Your task to perform on an android device: check the backup settings in the google photos Image 0: 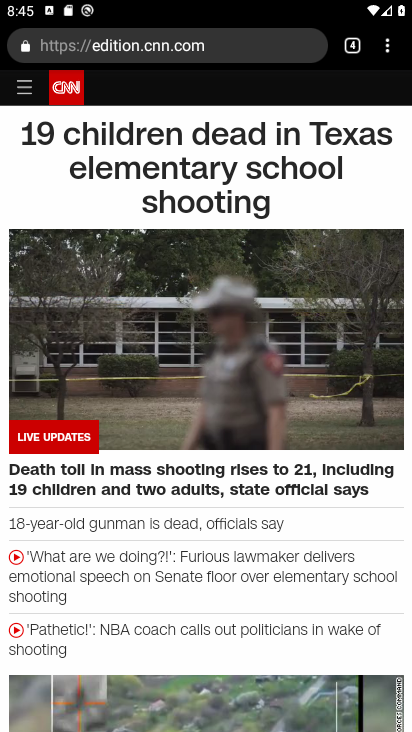
Step 0: press home button
Your task to perform on an android device: check the backup settings in the google photos Image 1: 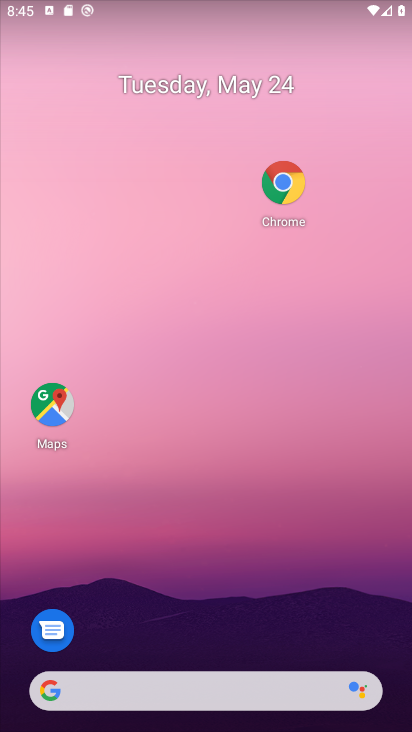
Step 1: drag from (169, 709) to (238, 298)
Your task to perform on an android device: check the backup settings in the google photos Image 2: 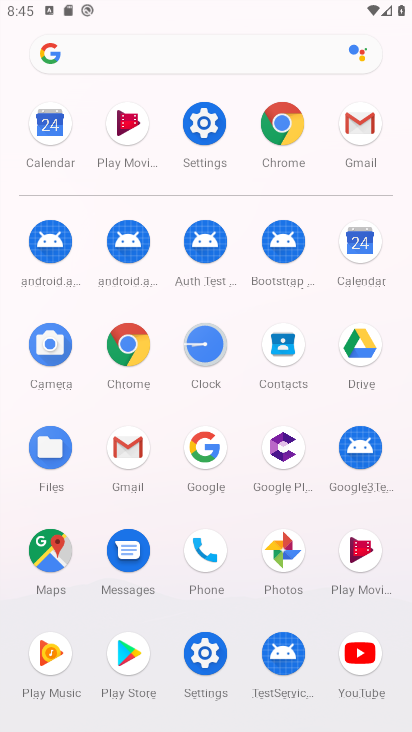
Step 2: click (285, 551)
Your task to perform on an android device: check the backup settings in the google photos Image 3: 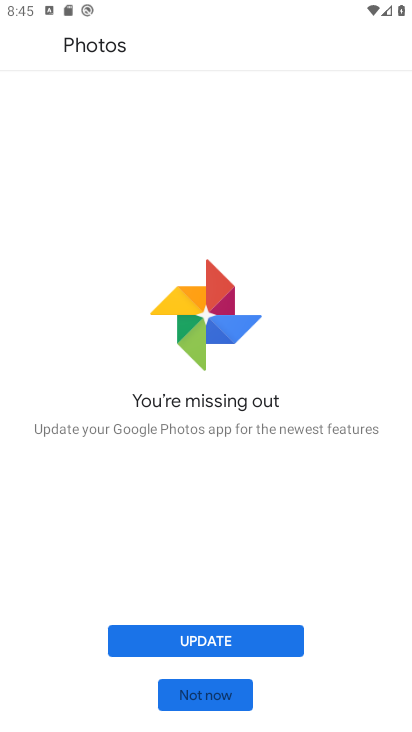
Step 3: click (215, 640)
Your task to perform on an android device: check the backup settings in the google photos Image 4: 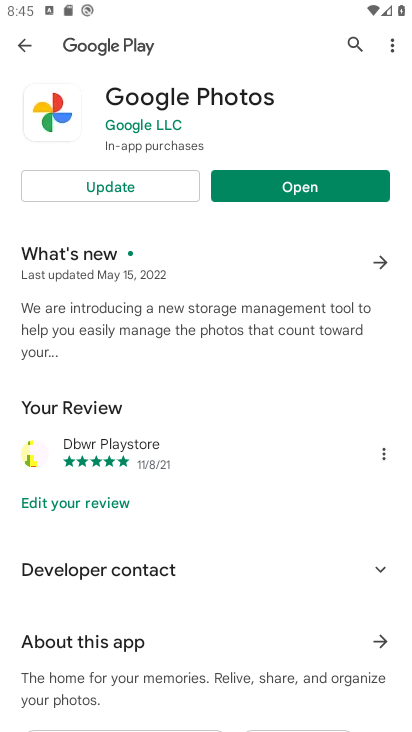
Step 4: click (281, 179)
Your task to perform on an android device: check the backup settings in the google photos Image 5: 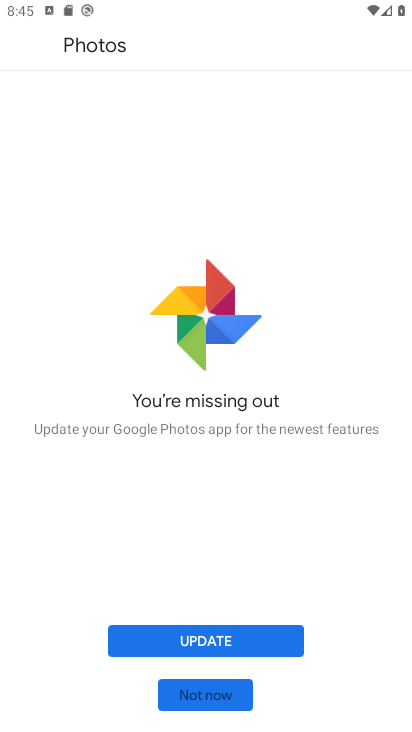
Step 5: click (222, 659)
Your task to perform on an android device: check the backup settings in the google photos Image 6: 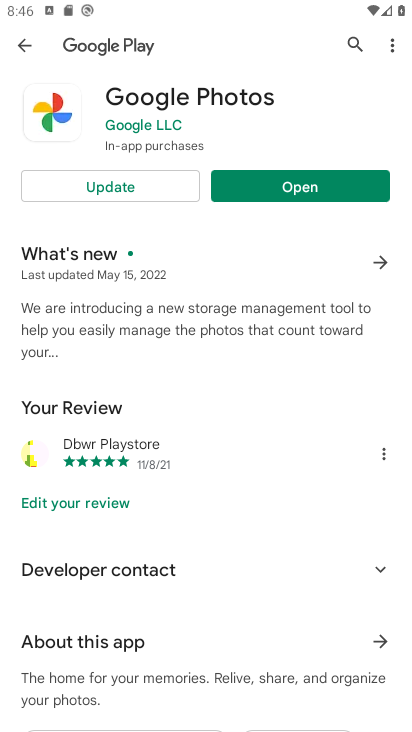
Step 6: click (222, 640)
Your task to perform on an android device: check the backup settings in the google photos Image 7: 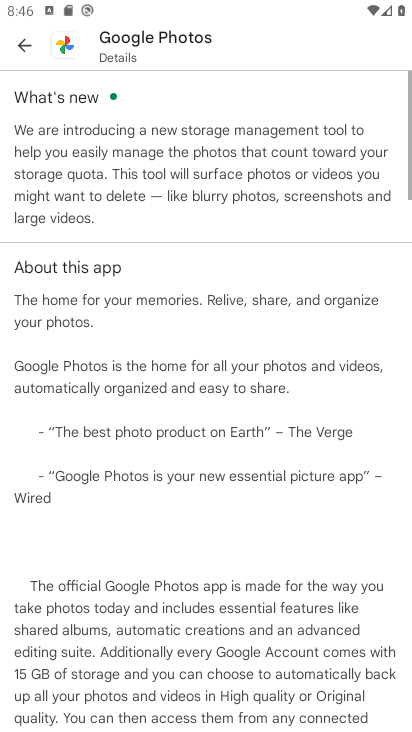
Step 7: click (115, 185)
Your task to perform on an android device: check the backup settings in the google photos Image 8: 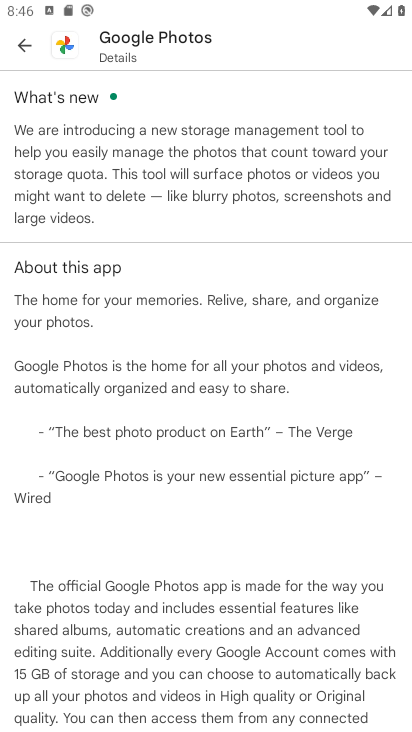
Step 8: drag from (189, 358) to (206, 601)
Your task to perform on an android device: check the backup settings in the google photos Image 9: 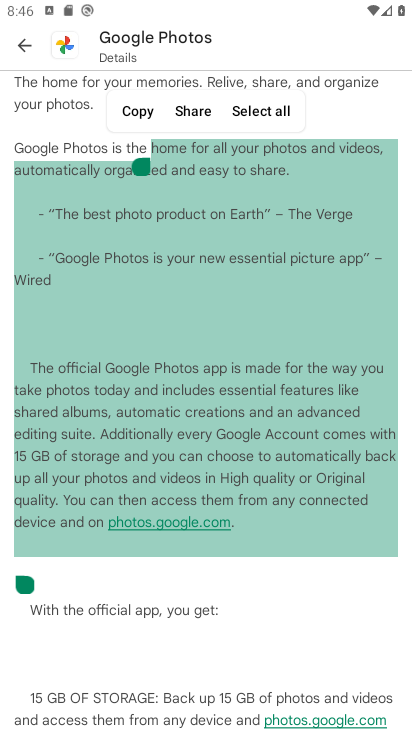
Step 9: click (20, 43)
Your task to perform on an android device: check the backup settings in the google photos Image 10: 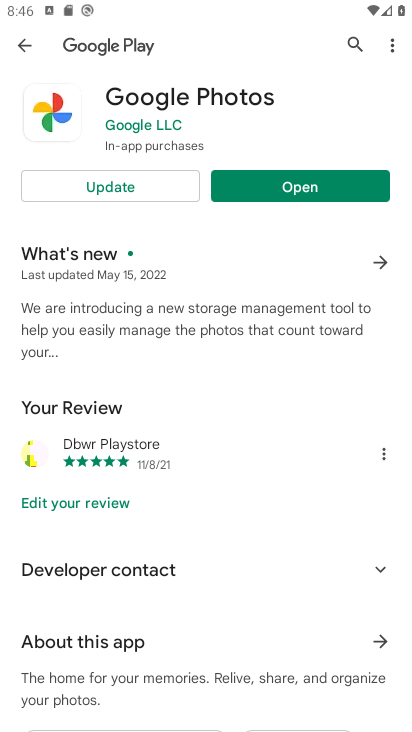
Step 10: click (97, 190)
Your task to perform on an android device: check the backup settings in the google photos Image 11: 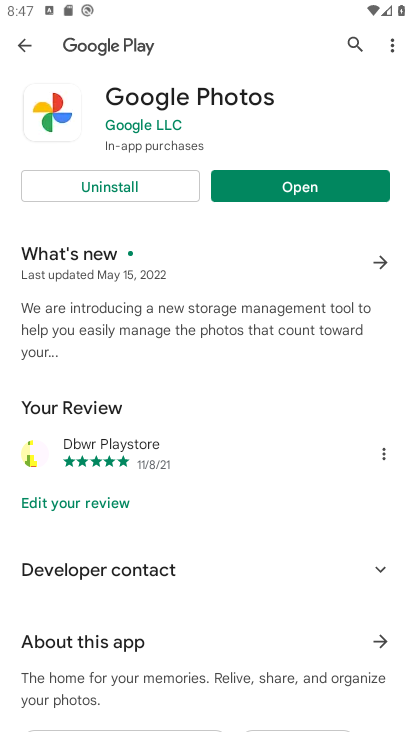
Step 11: click (287, 175)
Your task to perform on an android device: check the backup settings in the google photos Image 12: 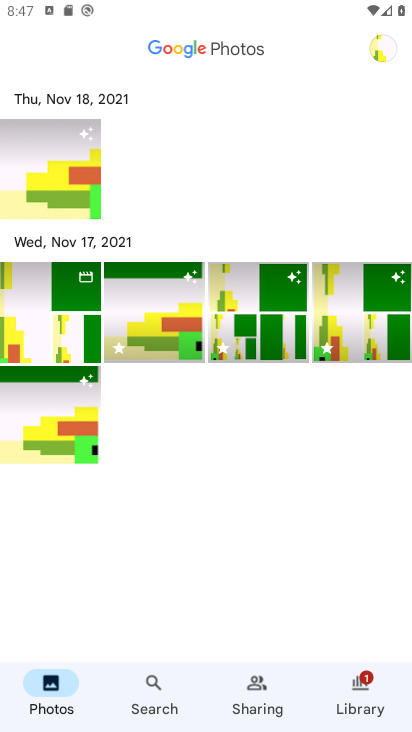
Step 12: click (393, 46)
Your task to perform on an android device: check the backup settings in the google photos Image 13: 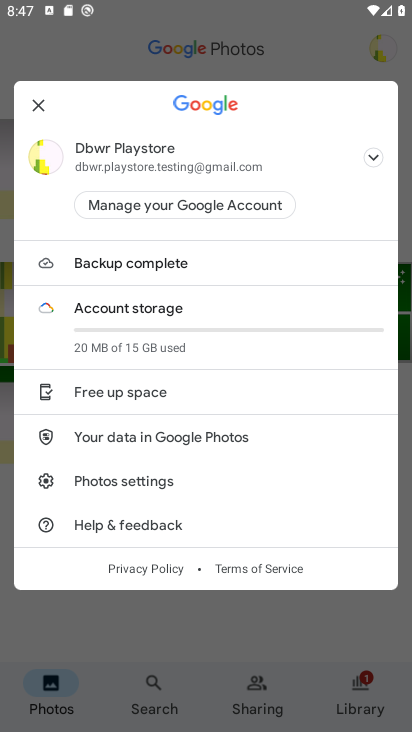
Step 13: click (106, 477)
Your task to perform on an android device: check the backup settings in the google photos Image 14: 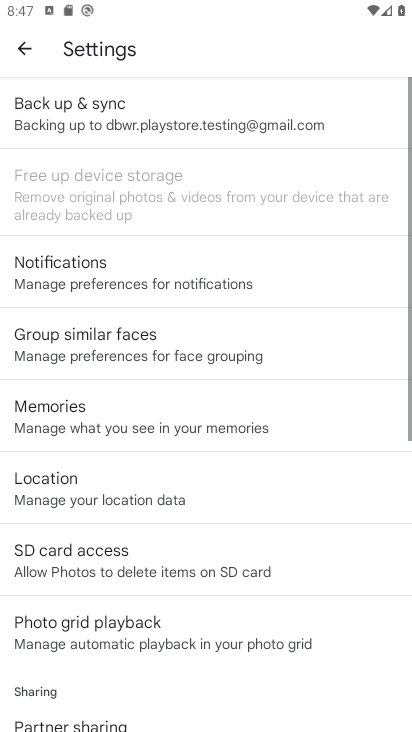
Step 14: click (128, 481)
Your task to perform on an android device: check the backup settings in the google photos Image 15: 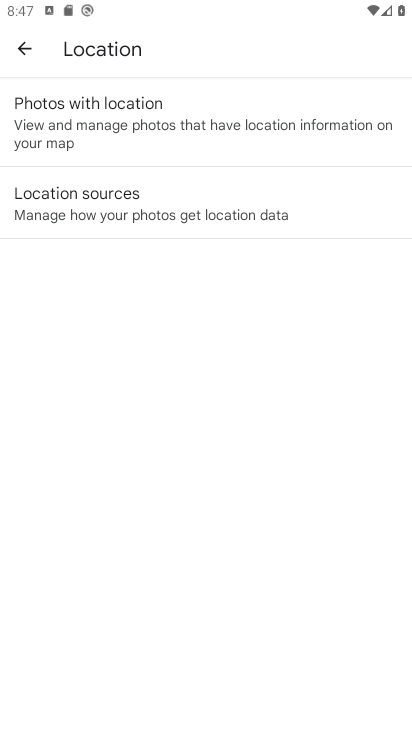
Step 15: click (42, 51)
Your task to perform on an android device: check the backup settings in the google photos Image 16: 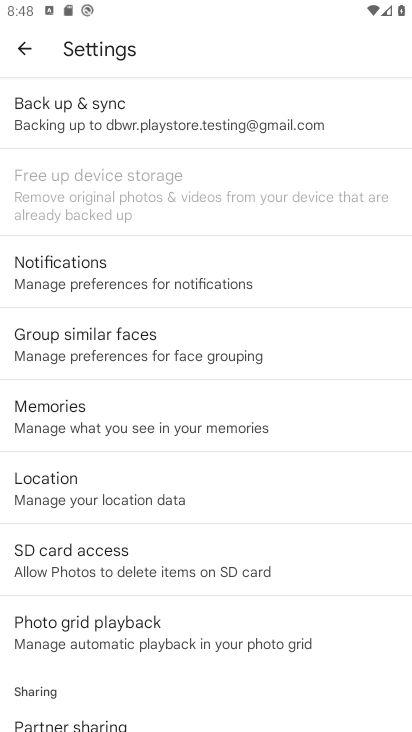
Step 16: click (85, 118)
Your task to perform on an android device: check the backup settings in the google photos Image 17: 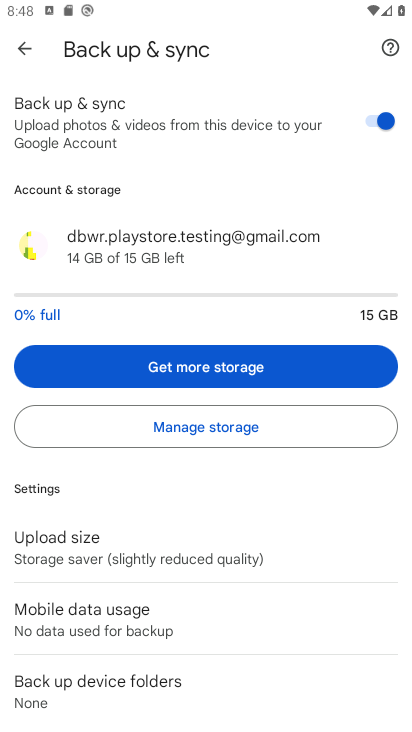
Step 17: task complete